Your task to perform on an android device: change the clock style Image 0: 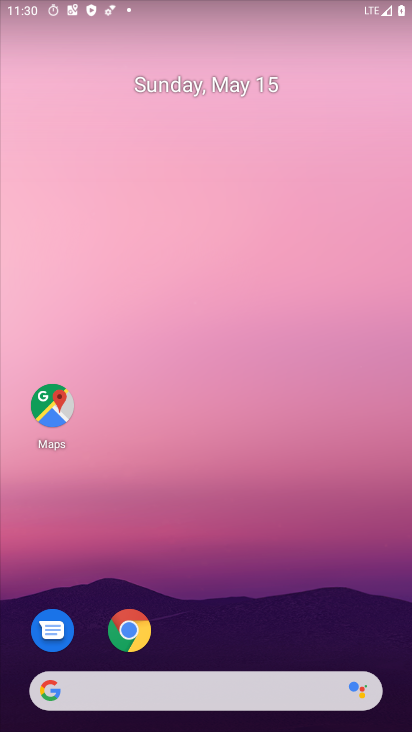
Step 0: drag from (184, 566) to (259, 64)
Your task to perform on an android device: change the clock style Image 1: 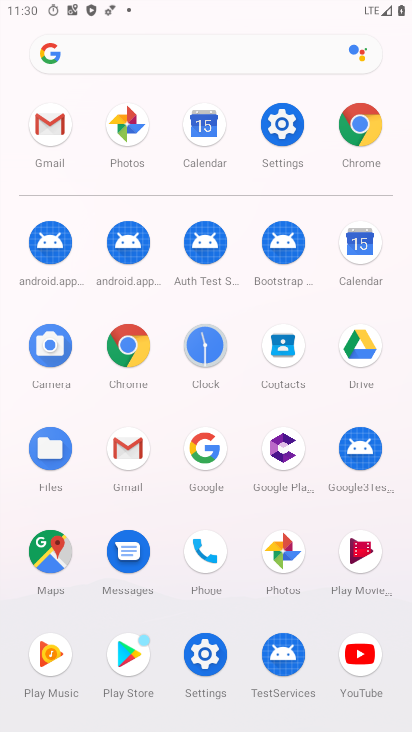
Step 1: click (190, 356)
Your task to perform on an android device: change the clock style Image 2: 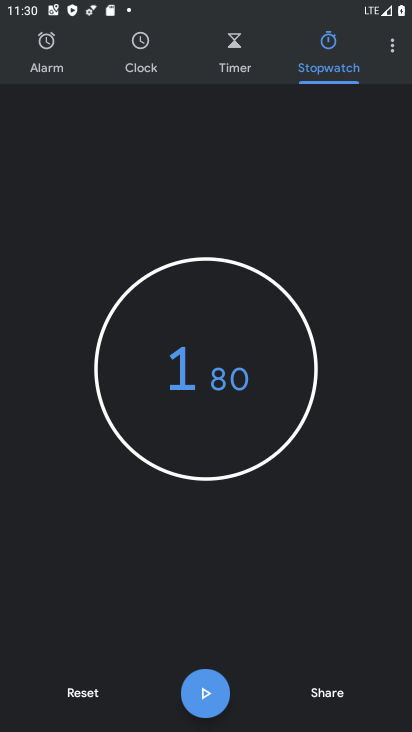
Step 2: click (397, 39)
Your task to perform on an android device: change the clock style Image 3: 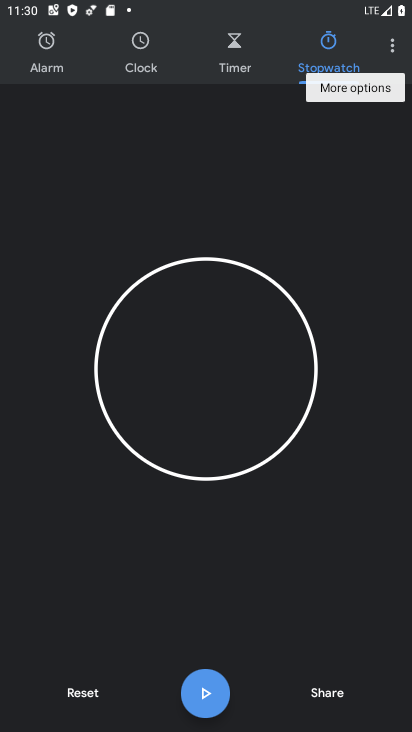
Step 3: click (390, 48)
Your task to perform on an android device: change the clock style Image 4: 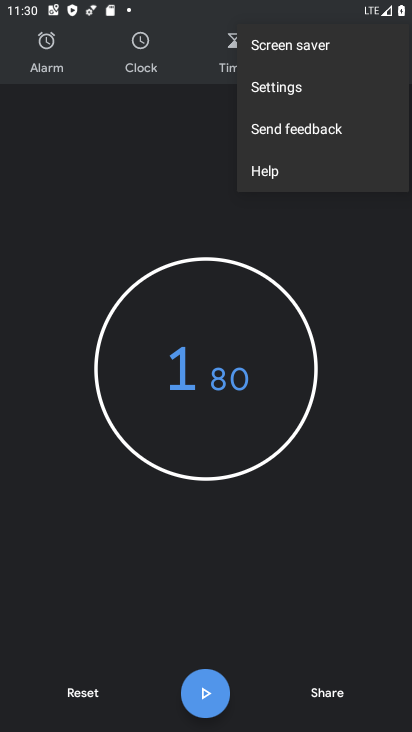
Step 4: click (271, 91)
Your task to perform on an android device: change the clock style Image 5: 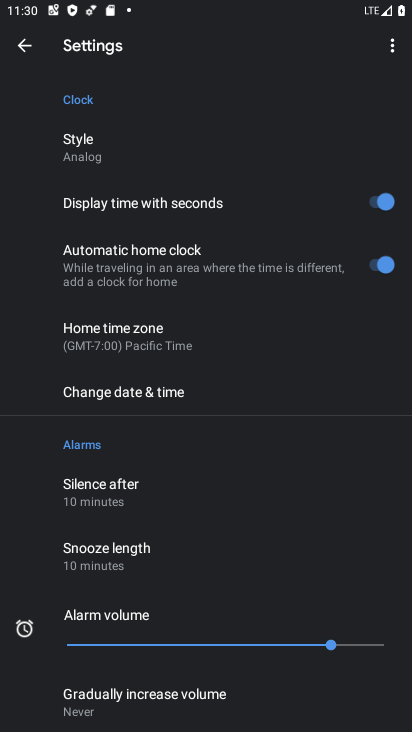
Step 5: click (116, 152)
Your task to perform on an android device: change the clock style Image 6: 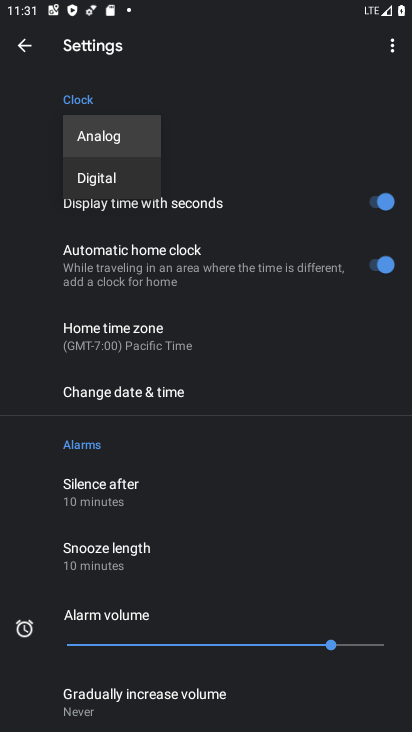
Step 6: click (105, 179)
Your task to perform on an android device: change the clock style Image 7: 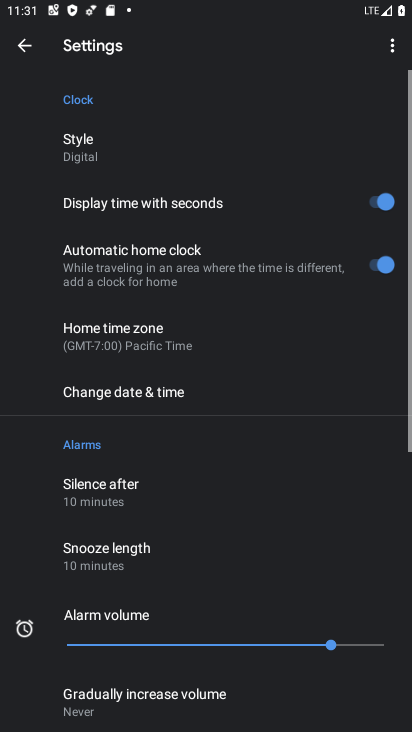
Step 7: task complete